Your task to perform on an android device: clear history in the chrome app Image 0: 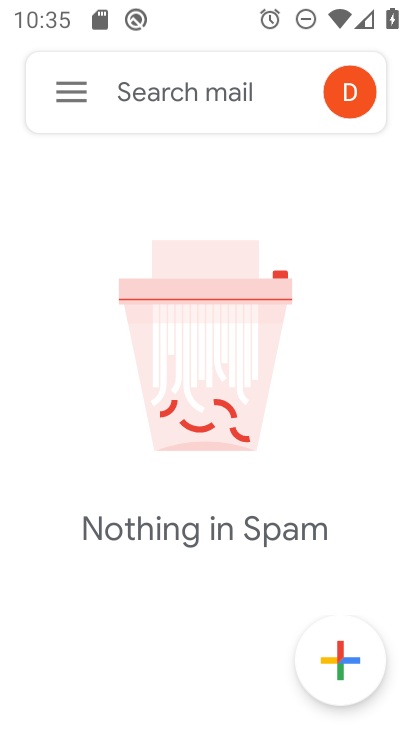
Step 0: press home button
Your task to perform on an android device: clear history in the chrome app Image 1: 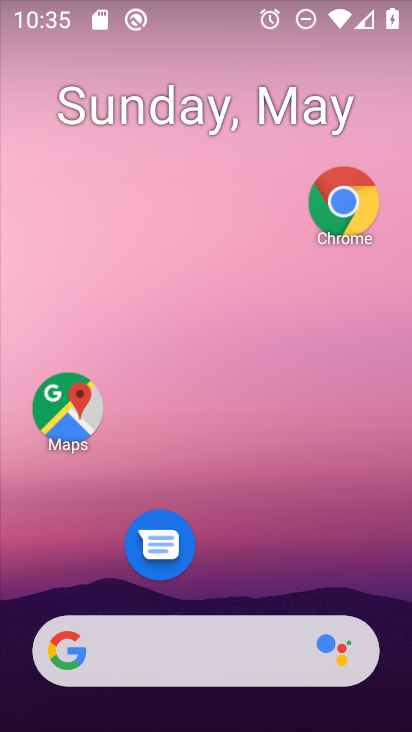
Step 1: click (343, 199)
Your task to perform on an android device: clear history in the chrome app Image 2: 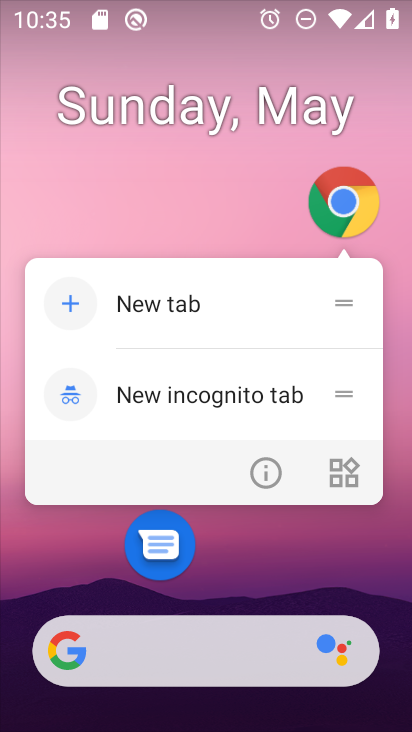
Step 2: click (343, 199)
Your task to perform on an android device: clear history in the chrome app Image 3: 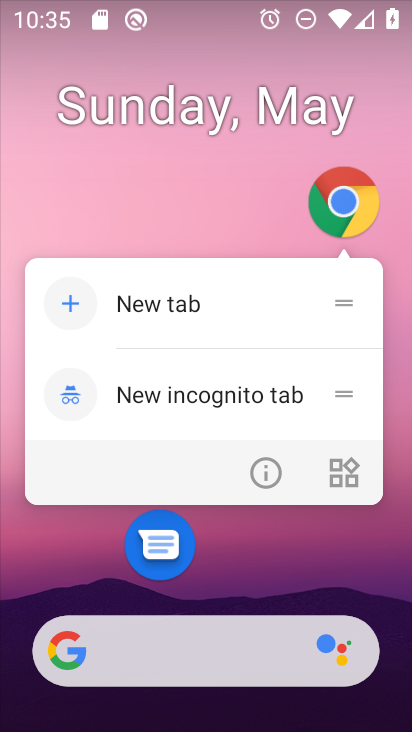
Step 3: click (343, 199)
Your task to perform on an android device: clear history in the chrome app Image 4: 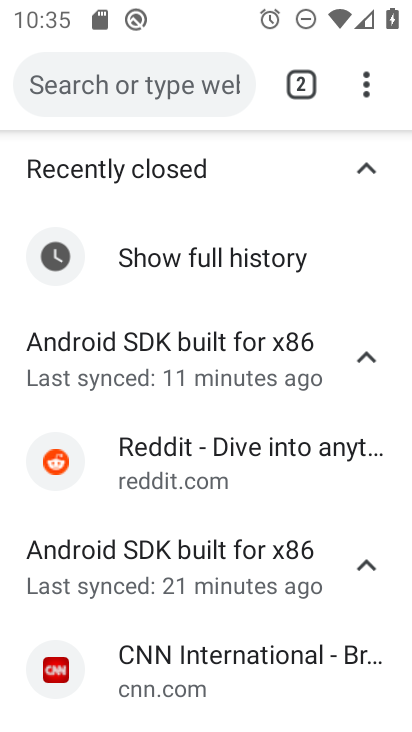
Step 4: click (365, 101)
Your task to perform on an android device: clear history in the chrome app Image 5: 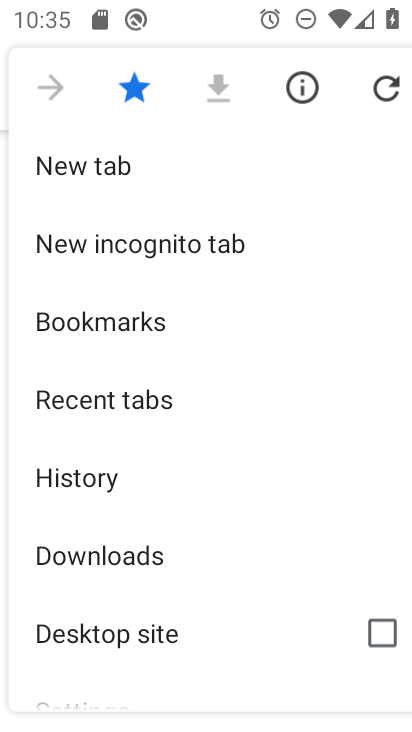
Step 5: click (92, 474)
Your task to perform on an android device: clear history in the chrome app Image 6: 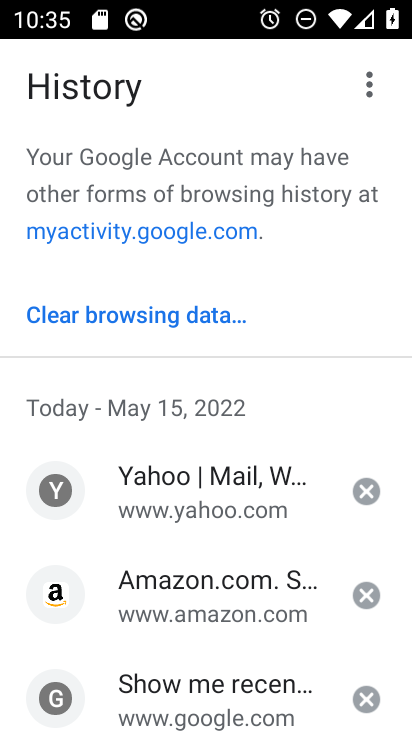
Step 6: click (174, 314)
Your task to perform on an android device: clear history in the chrome app Image 7: 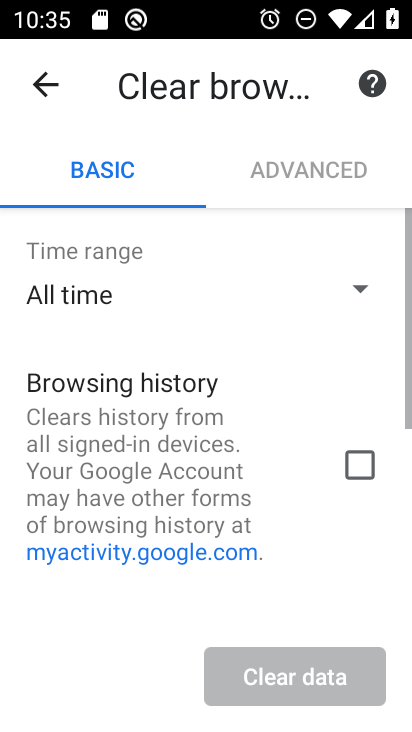
Step 7: click (289, 474)
Your task to perform on an android device: clear history in the chrome app Image 8: 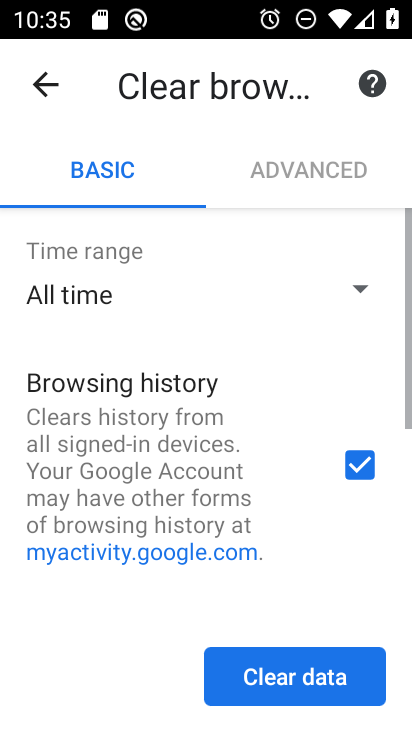
Step 8: drag from (264, 485) to (216, 185)
Your task to perform on an android device: clear history in the chrome app Image 9: 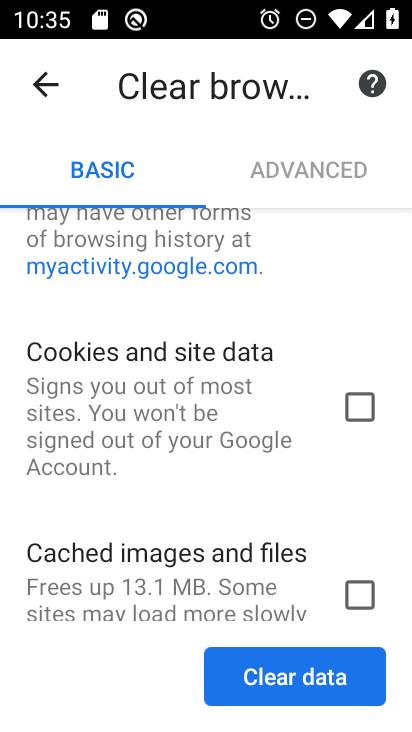
Step 9: click (223, 358)
Your task to perform on an android device: clear history in the chrome app Image 10: 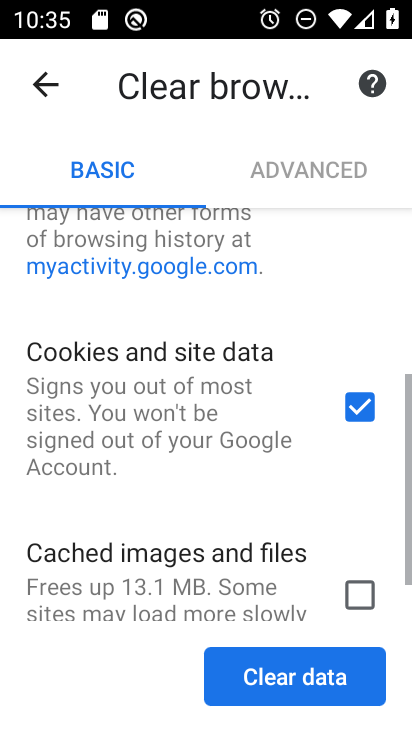
Step 10: click (236, 523)
Your task to perform on an android device: clear history in the chrome app Image 11: 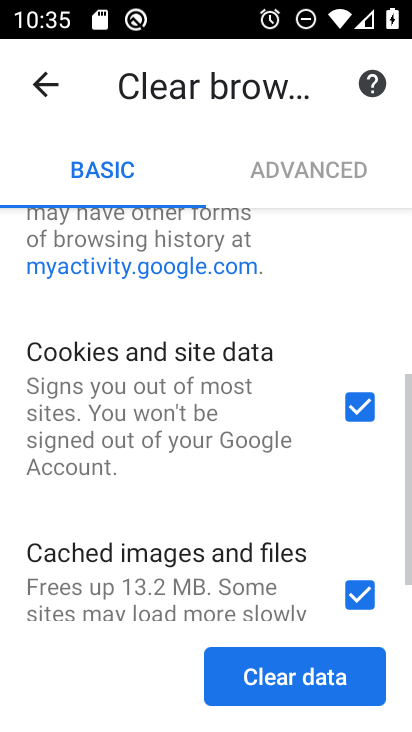
Step 11: click (310, 684)
Your task to perform on an android device: clear history in the chrome app Image 12: 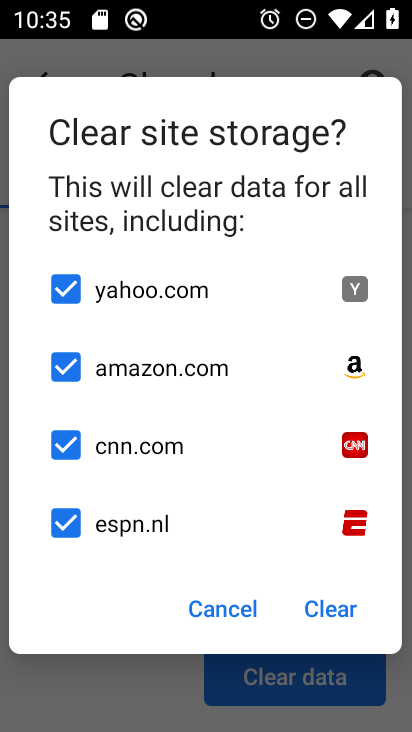
Step 12: click (326, 606)
Your task to perform on an android device: clear history in the chrome app Image 13: 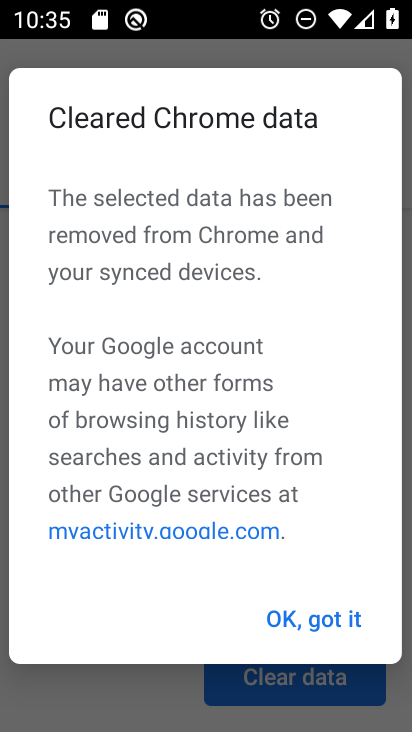
Step 13: click (325, 627)
Your task to perform on an android device: clear history in the chrome app Image 14: 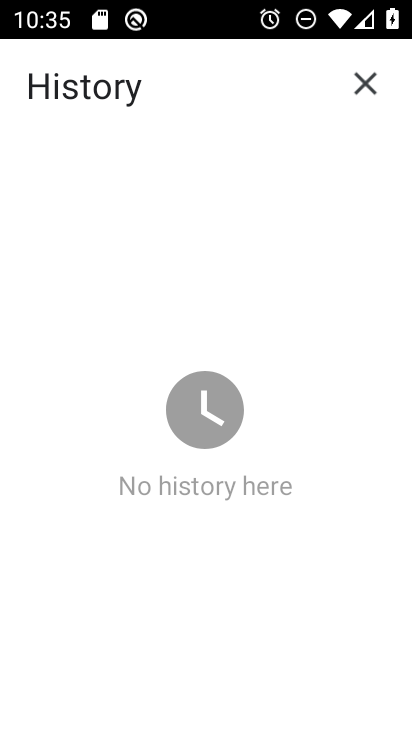
Step 14: task complete